Your task to perform on an android device: turn off javascript in the chrome app Image 0: 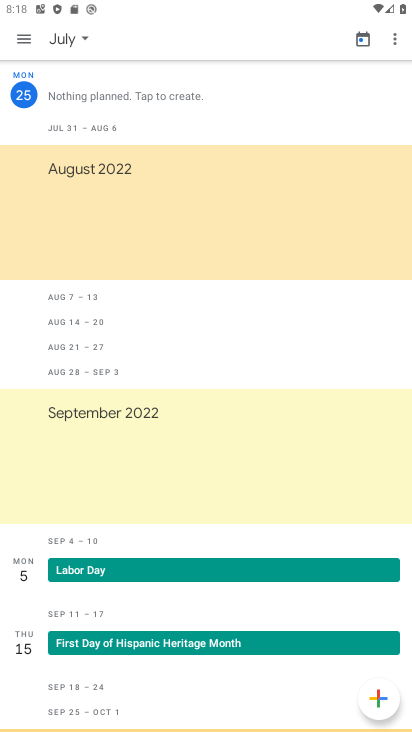
Step 0: press home button
Your task to perform on an android device: turn off javascript in the chrome app Image 1: 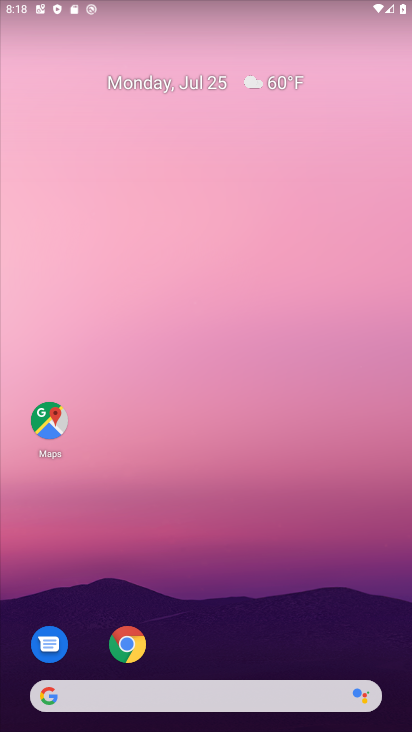
Step 1: click (133, 651)
Your task to perform on an android device: turn off javascript in the chrome app Image 2: 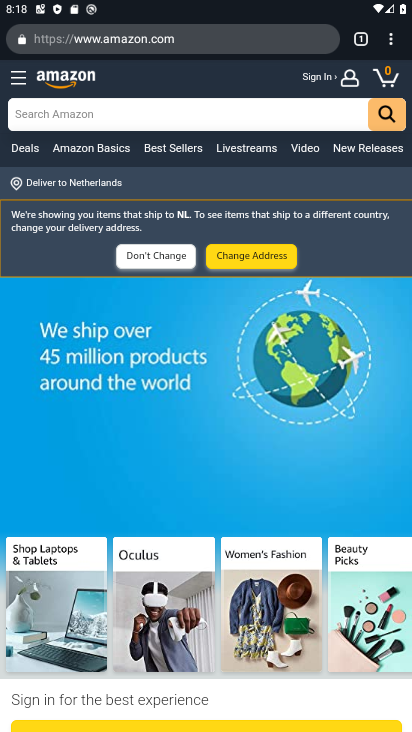
Step 2: click (365, 44)
Your task to perform on an android device: turn off javascript in the chrome app Image 3: 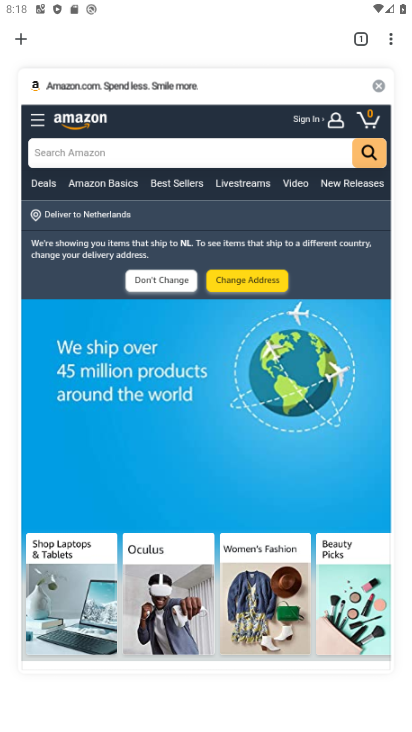
Step 3: task complete